Your task to perform on an android device: Search for a custom-made wallet on Etsy Image 0: 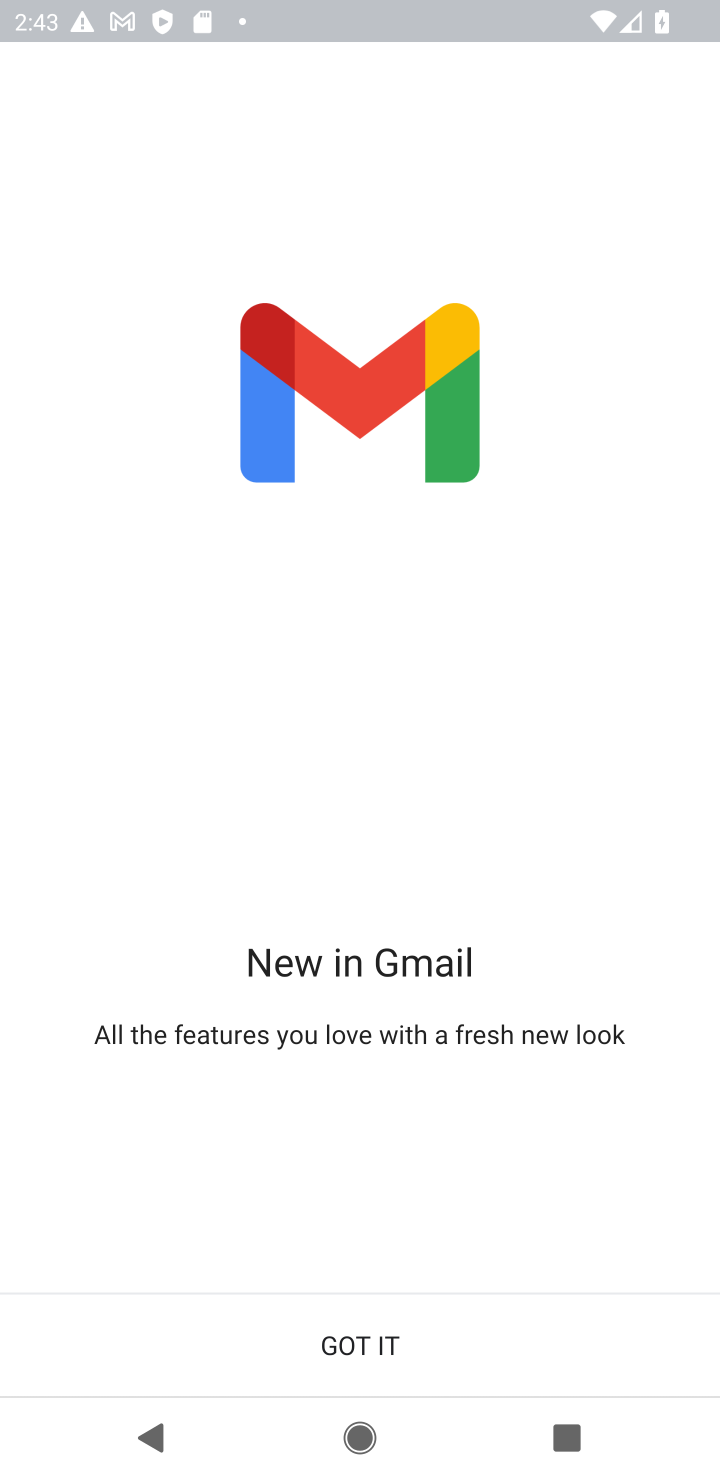
Step 0: press home button
Your task to perform on an android device: Search for a custom-made wallet on Etsy Image 1: 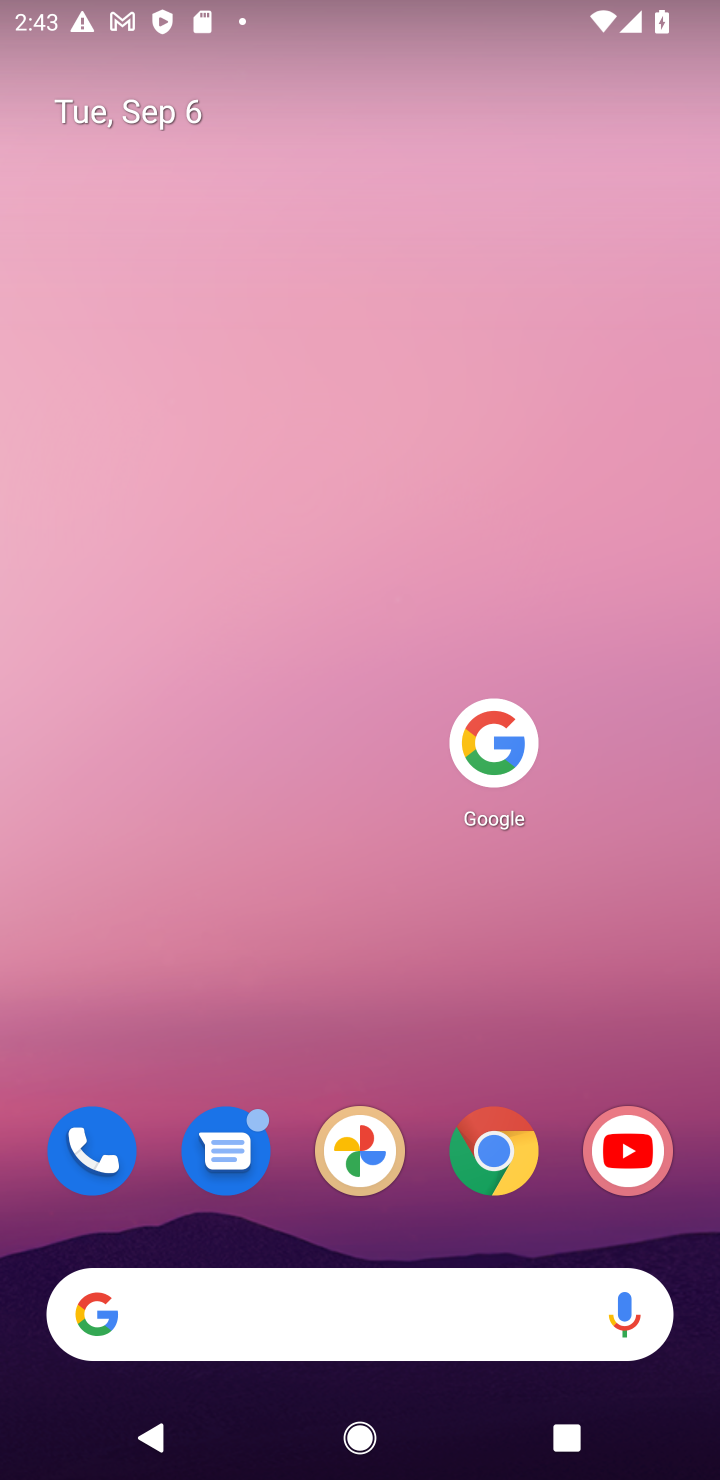
Step 1: click (504, 741)
Your task to perform on an android device: Search for a custom-made wallet on Etsy Image 2: 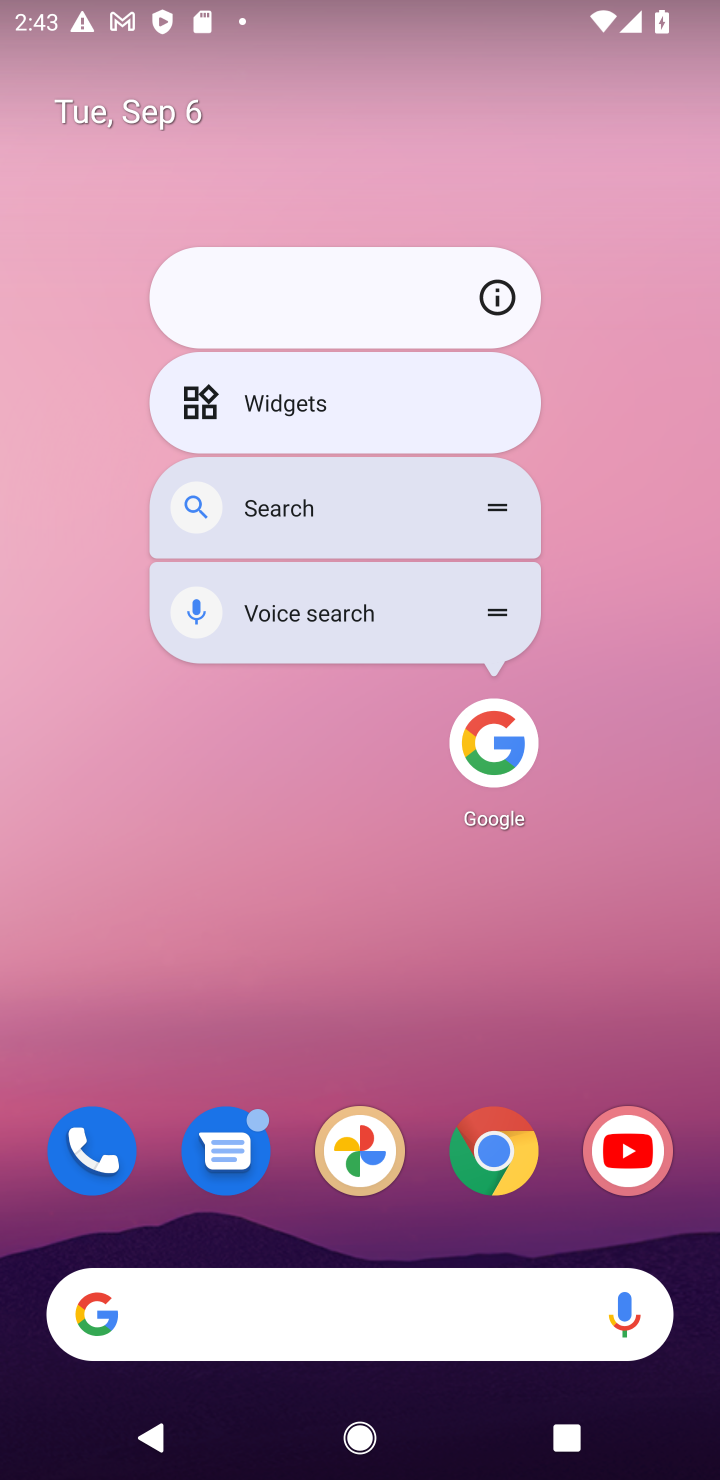
Step 2: click (492, 759)
Your task to perform on an android device: Search for a custom-made wallet on Etsy Image 3: 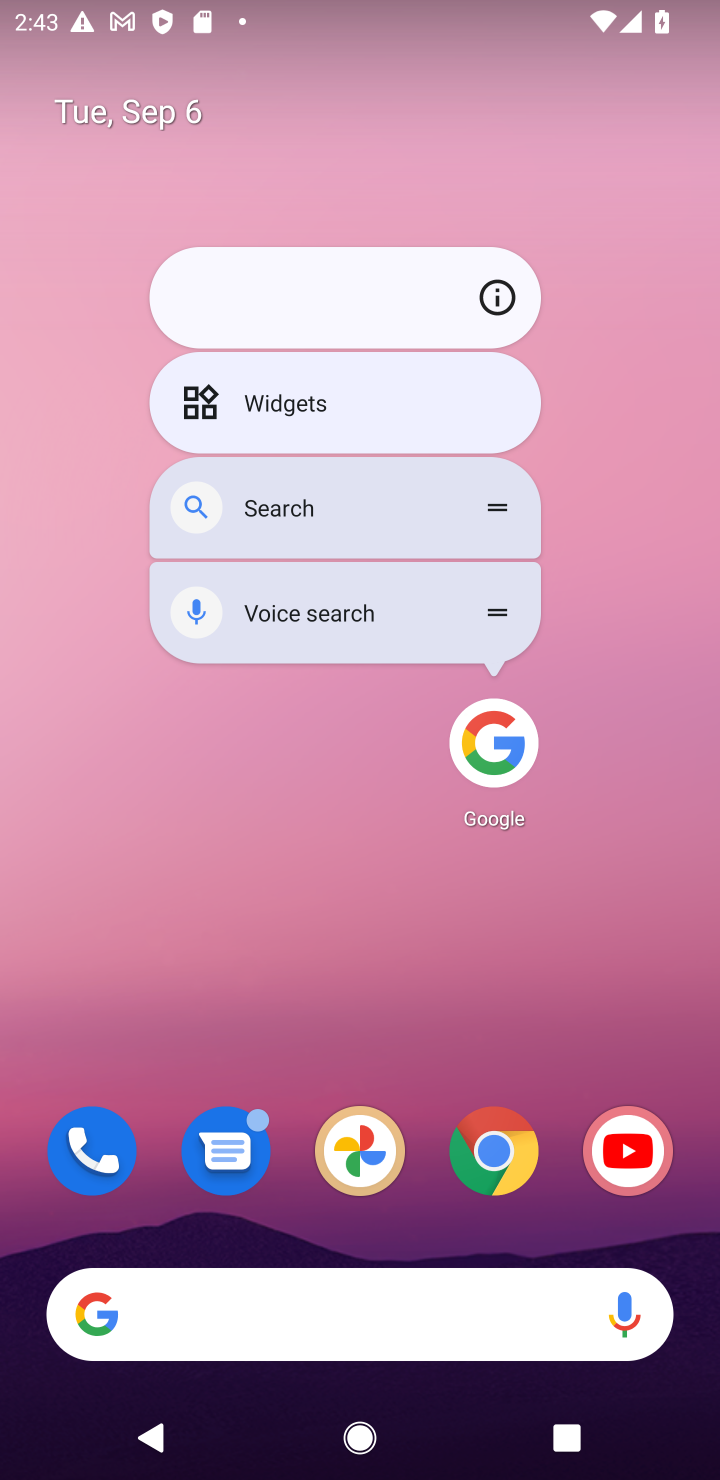
Step 3: click (493, 722)
Your task to perform on an android device: Search for a custom-made wallet on Etsy Image 4: 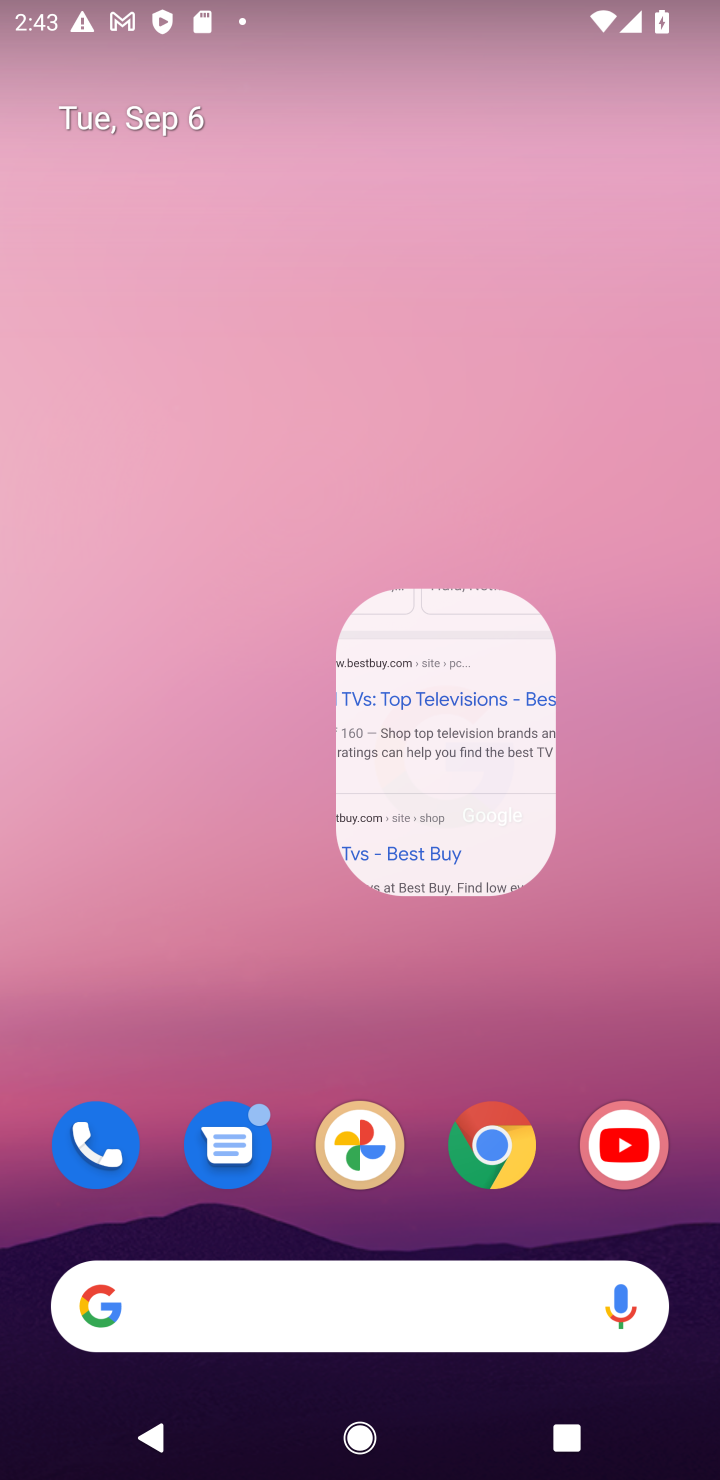
Step 4: click (493, 722)
Your task to perform on an android device: Search for a custom-made wallet on Etsy Image 5: 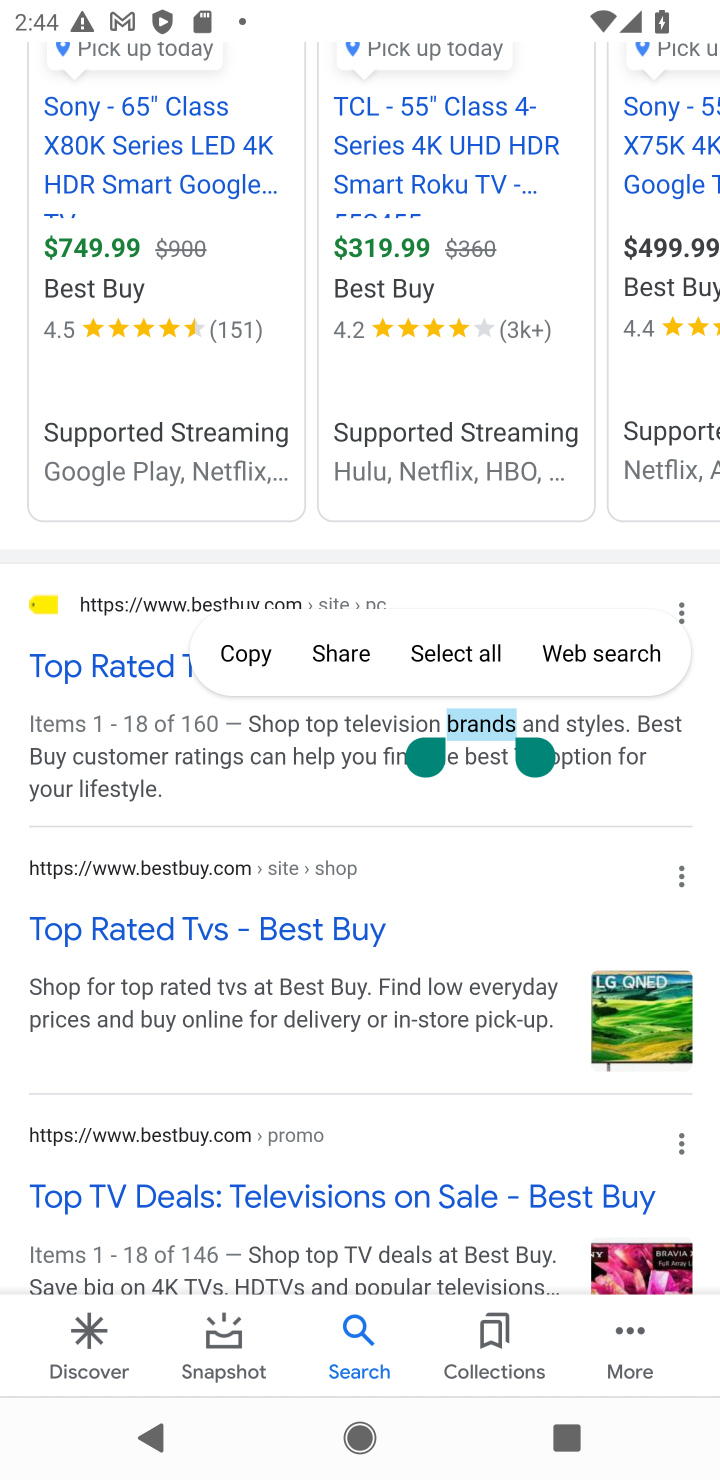
Step 5: drag from (314, 769) to (306, 1036)
Your task to perform on an android device: Search for a custom-made wallet on Etsy Image 6: 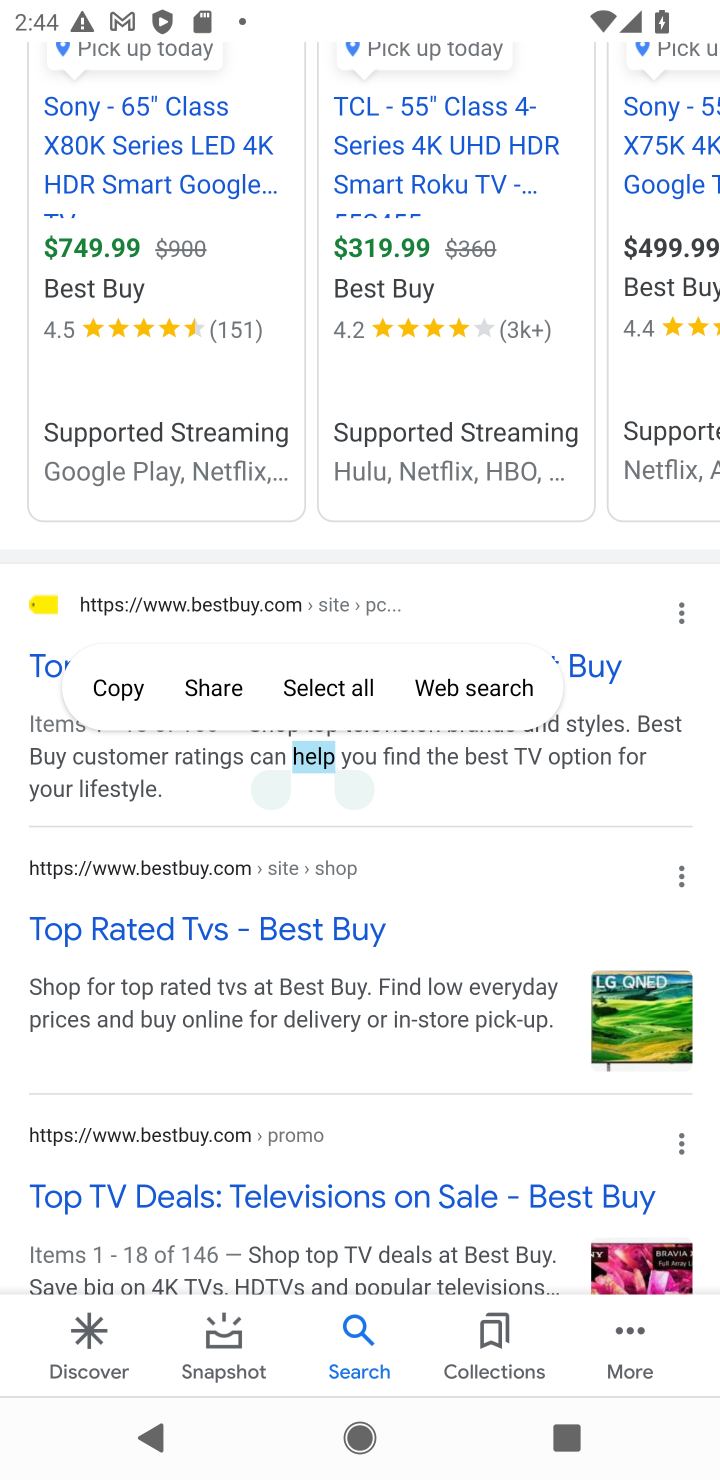
Step 6: drag from (299, 1021) to (307, 1128)
Your task to perform on an android device: Search for a custom-made wallet on Etsy Image 7: 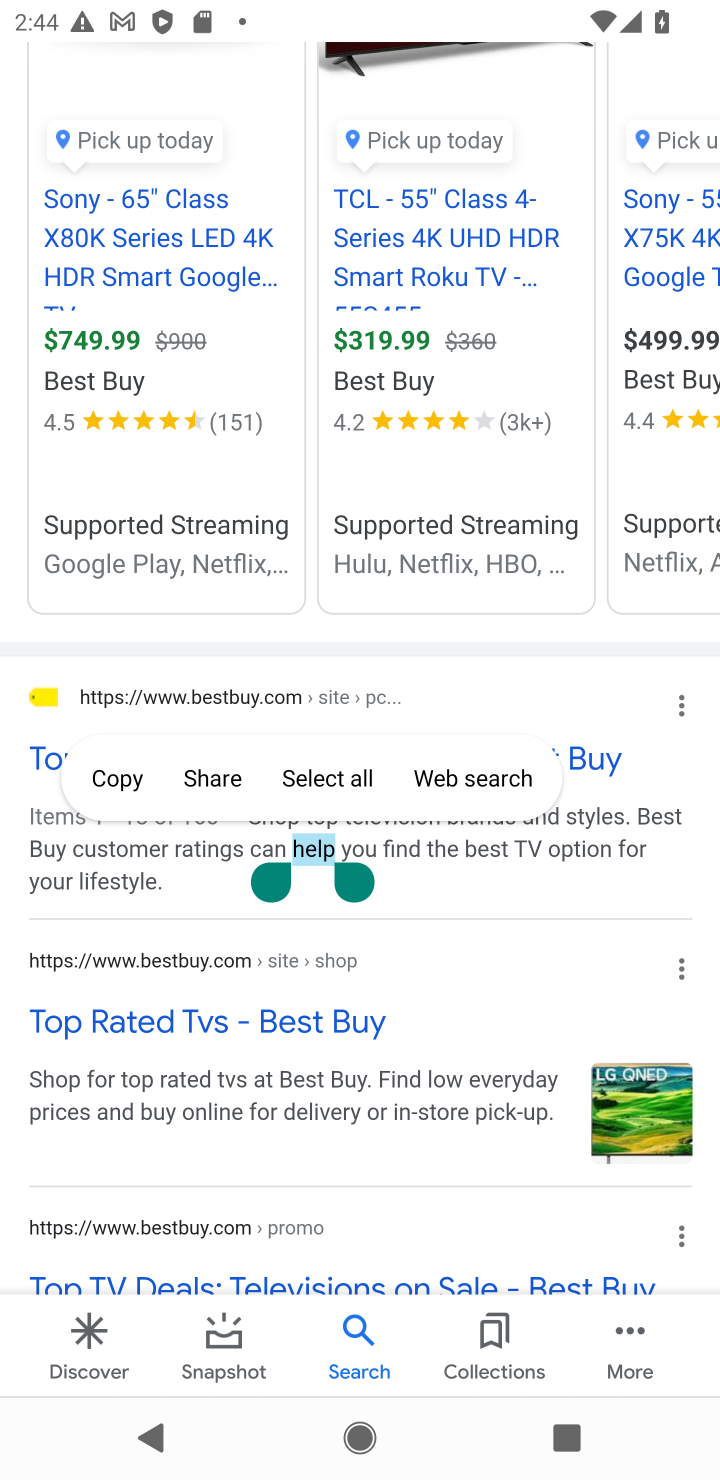
Step 7: drag from (335, 501) to (335, 1085)
Your task to perform on an android device: Search for a custom-made wallet on Etsy Image 8: 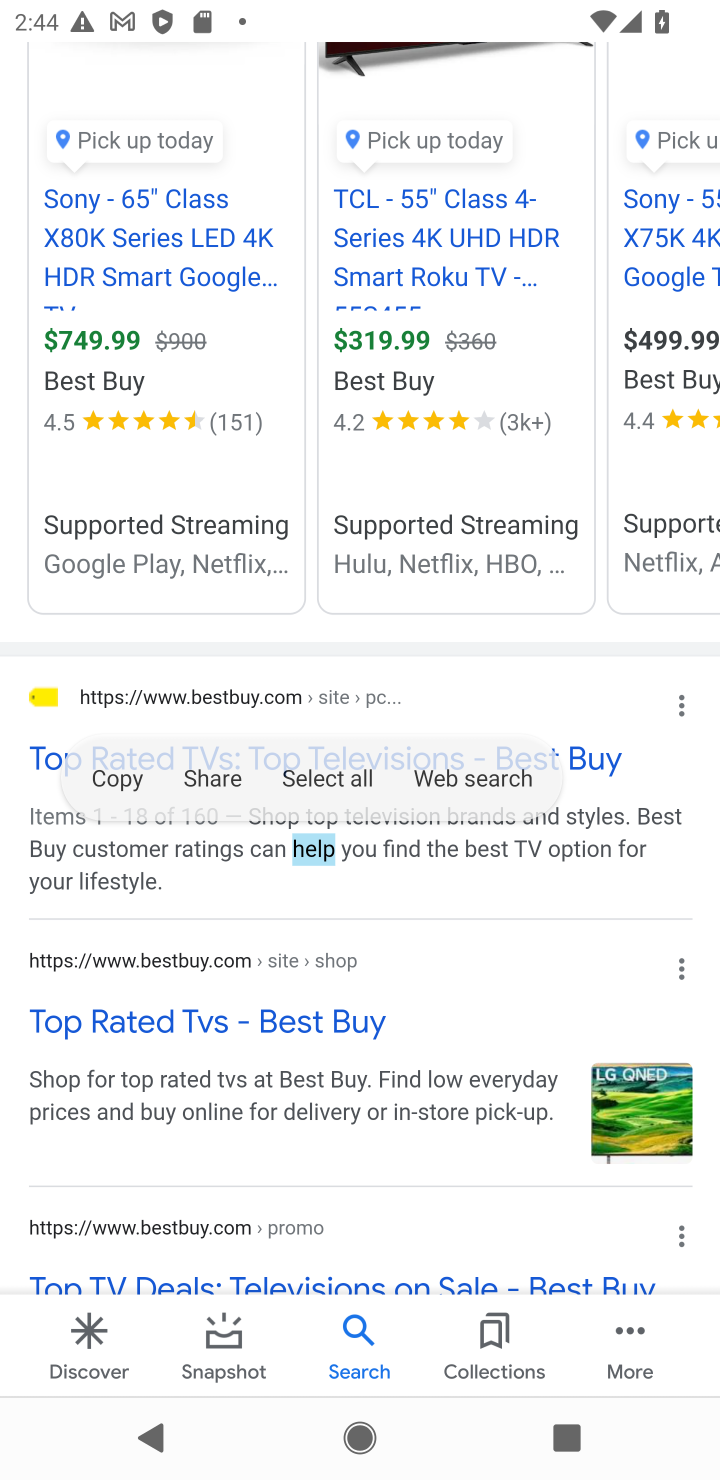
Step 8: drag from (450, 983) to (308, 716)
Your task to perform on an android device: Search for a custom-made wallet on Etsy Image 9: 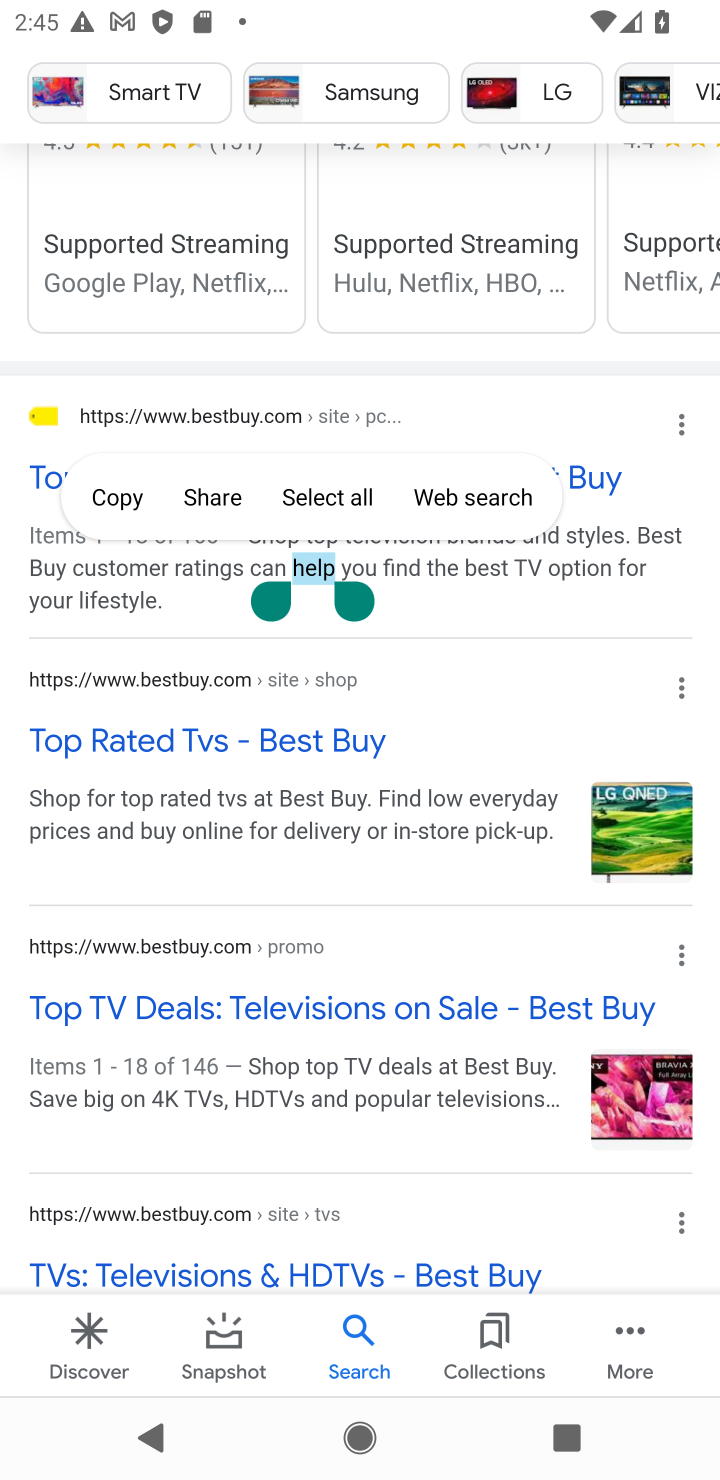
Step 9: drag from (370, 806) to (362, 1266)
Your task to perform on an android device: Search for a custom-made wallet on Etsy Image 10: 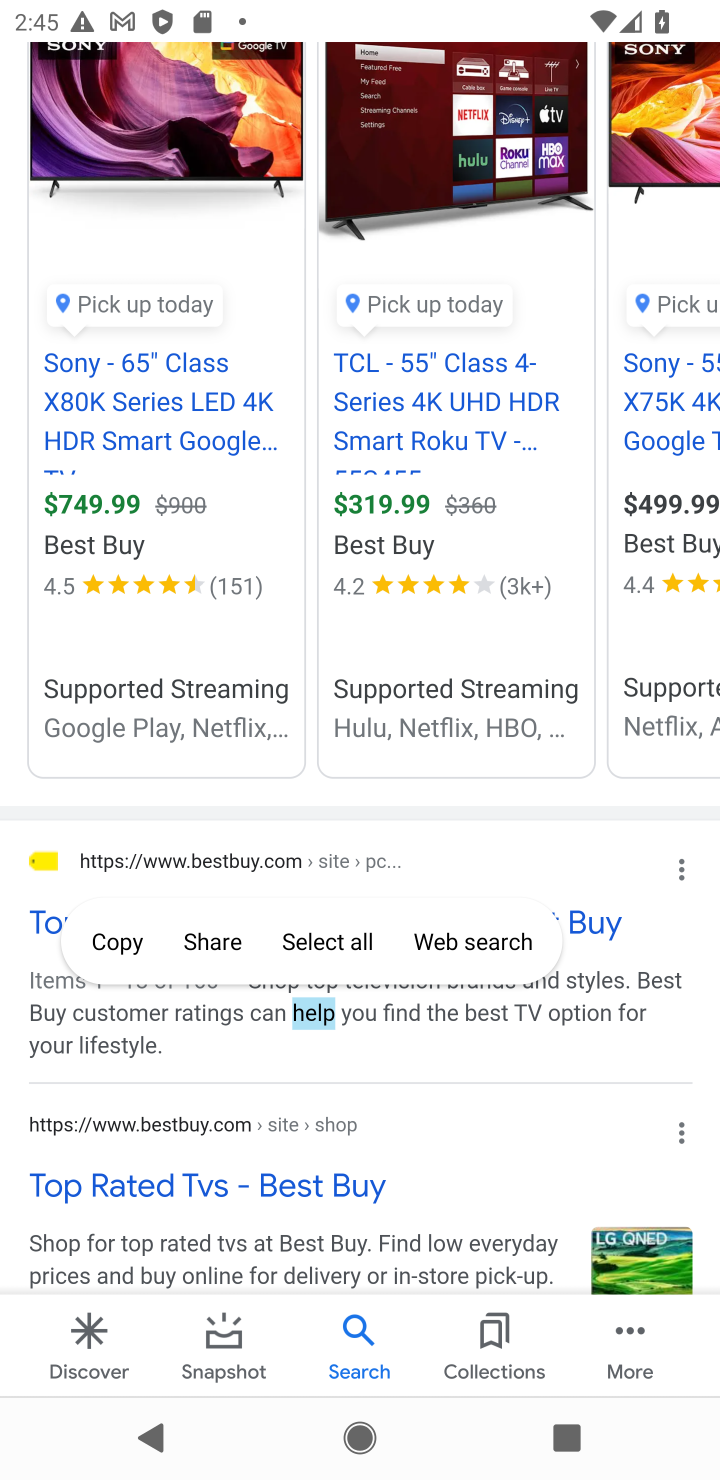
Step 10: drag from (370, 522) to (355, 912)
Your task to perform on an android device: Search for a custom-made wallet on Etsy Image 11: 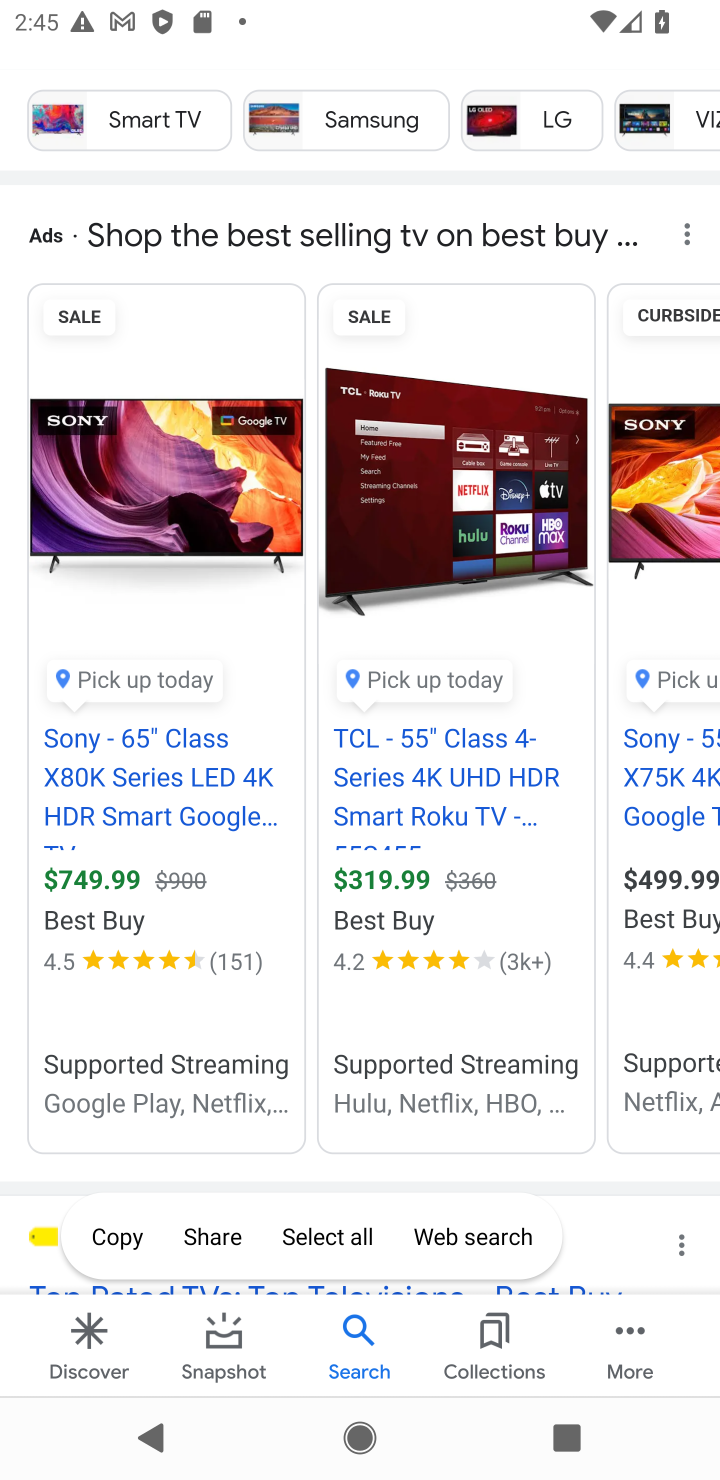
Step 11: drag from (318, 750) to (326, 1169)
Your task to perform on an android device: Search for a custom-made wallet on Etsy Image 12: 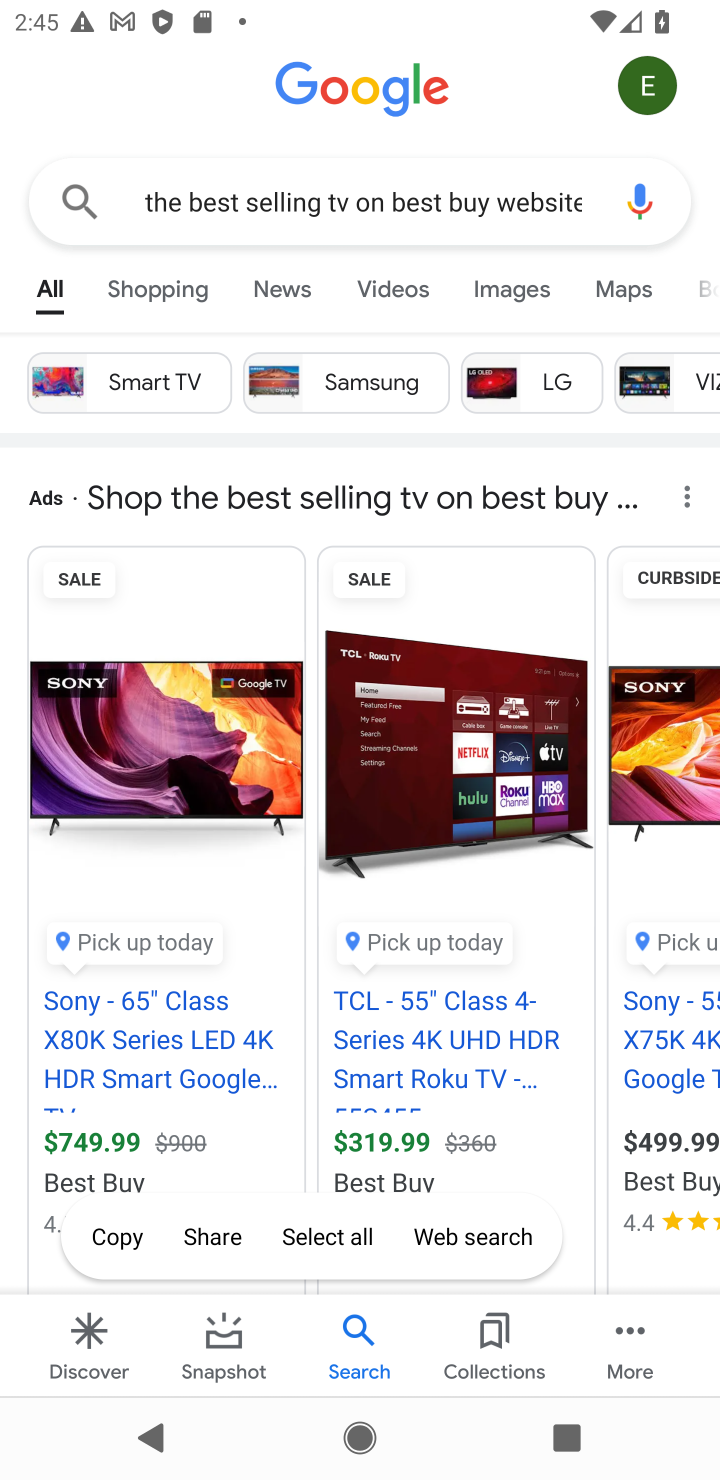
Step 12: click (413, 194)
Your task to perform on an android device: Search for a custom-made wallet on Etsy Image 13: 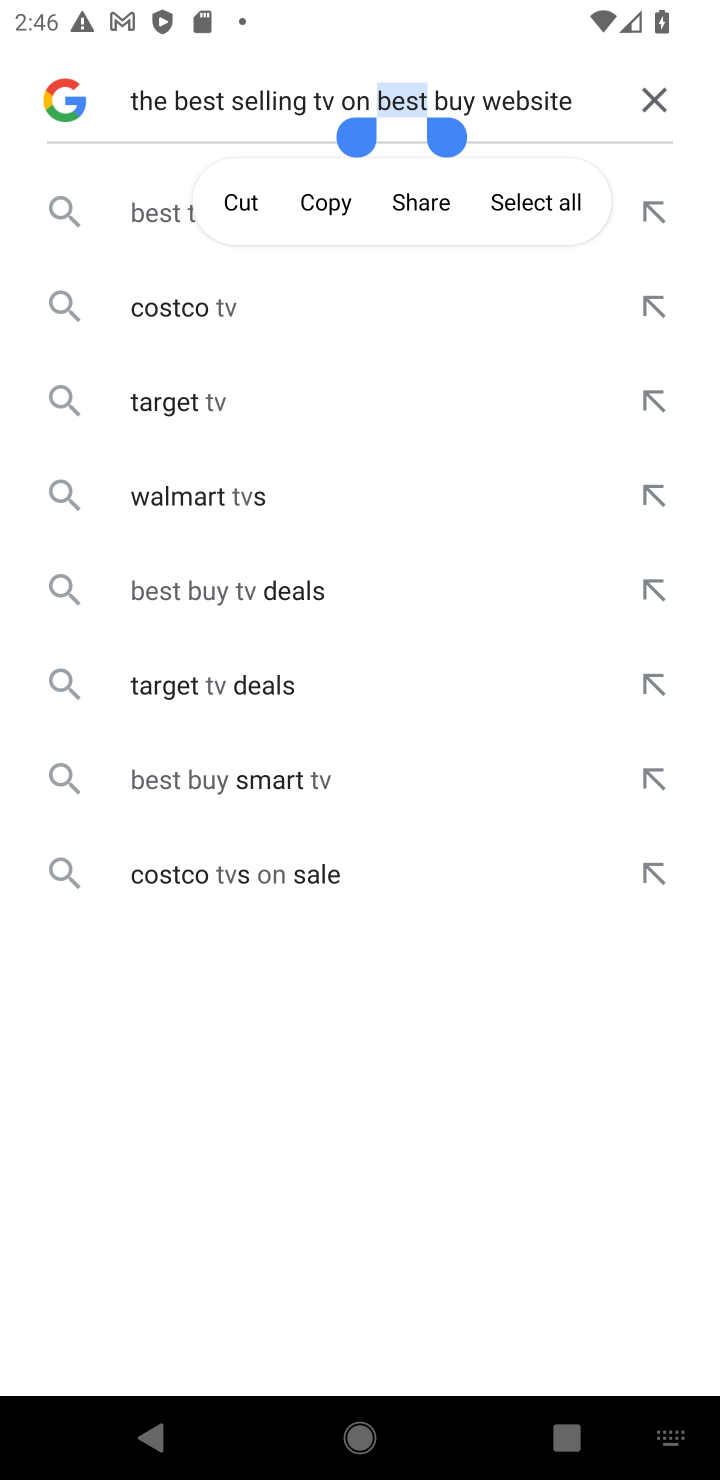
Step 13: click (660, 99)
Your task to perform on an android device: Search for a custom-made wallet on Etsy Image 14: 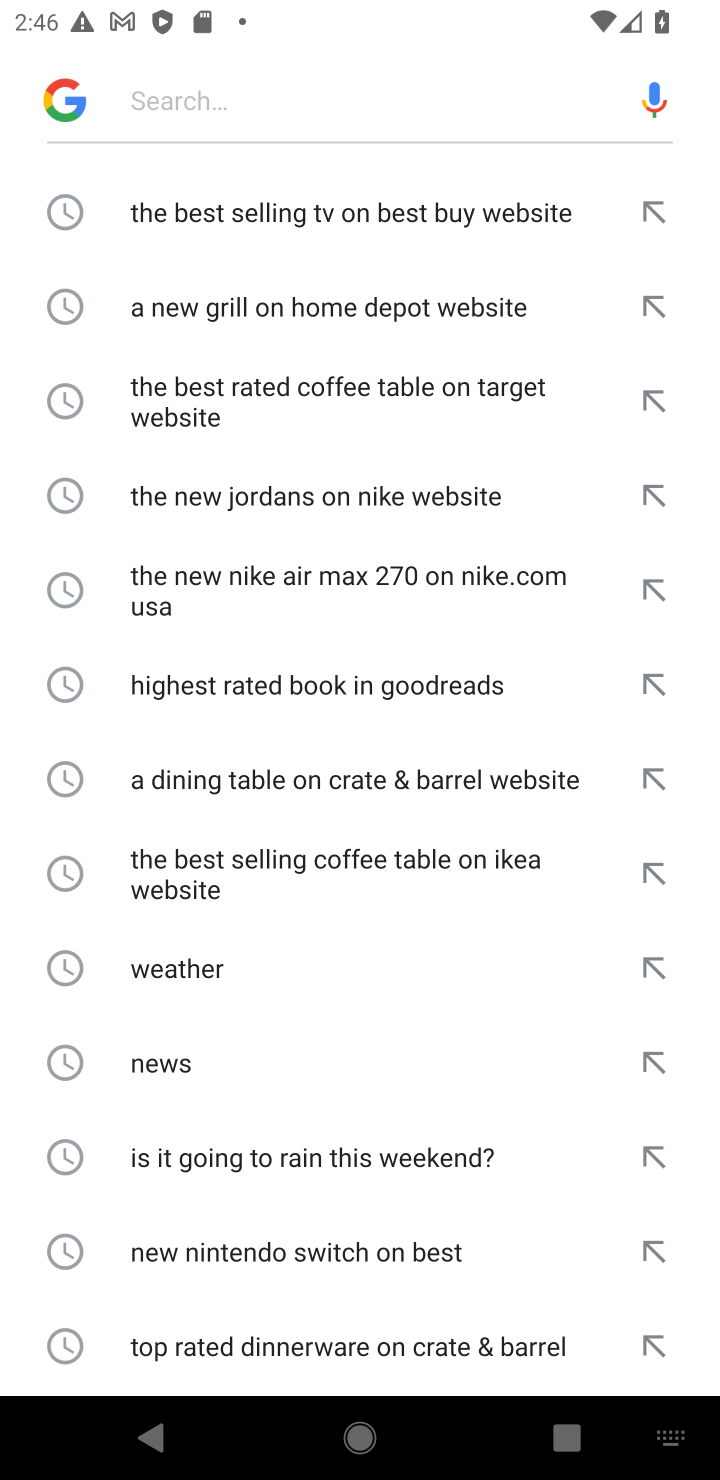
Step 14: click (288, 109)
Your task to perform on an android device: Search for a custom-made wallet on Etsy Image 15: 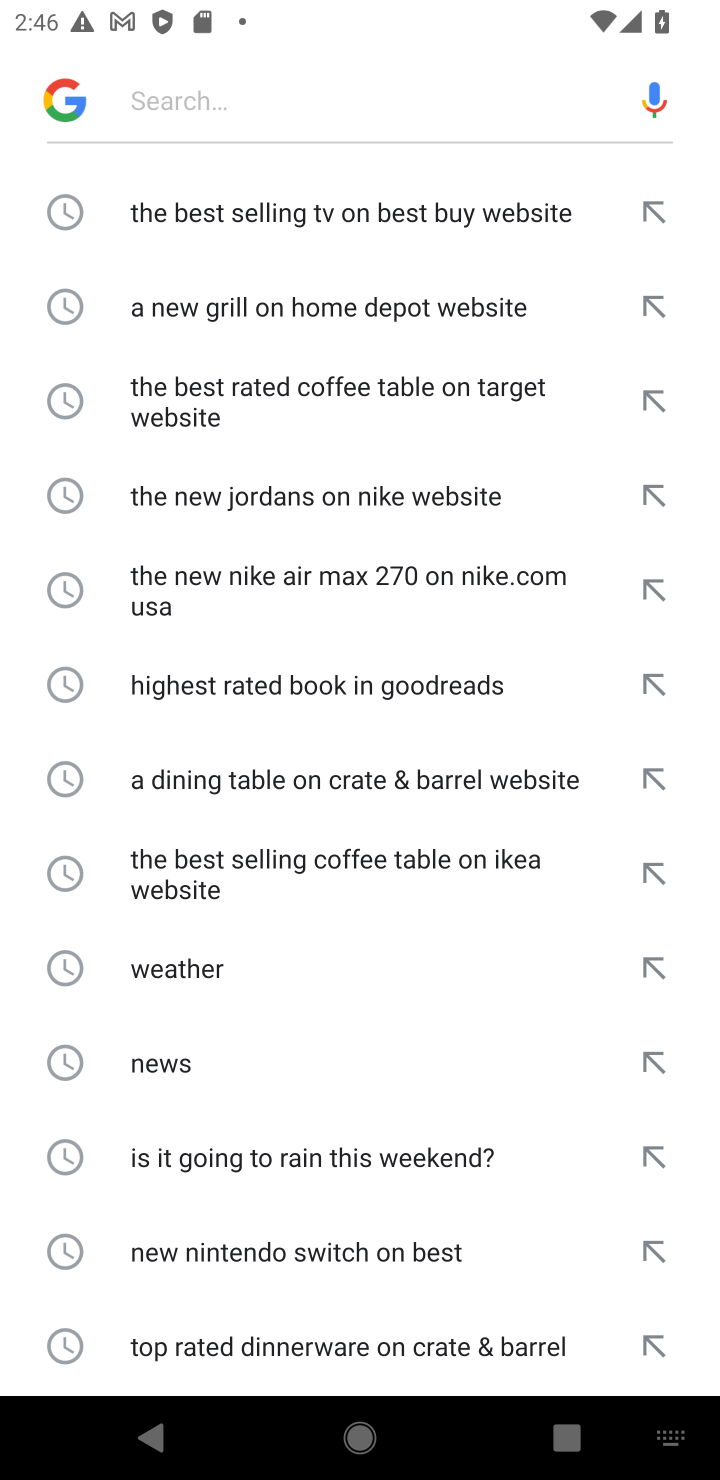
Step 15: type "a custom-made wallet on Etsy "
Your task to perform on an android device: Search for a custom-made wallet on Etsy Image 16: 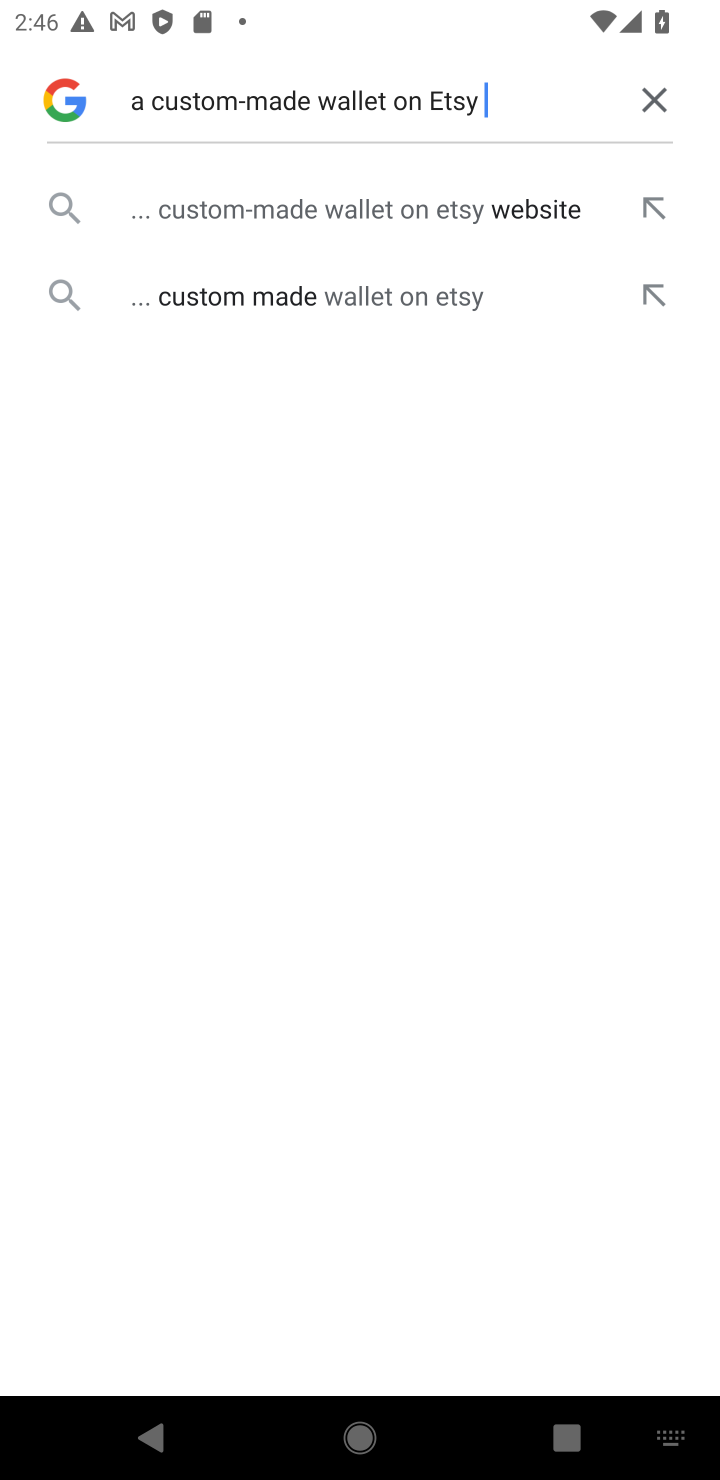
Step 16: click (339, 214)
Your task to perform on an android device: Search for a custom-made wallet on Etsy Image 17: 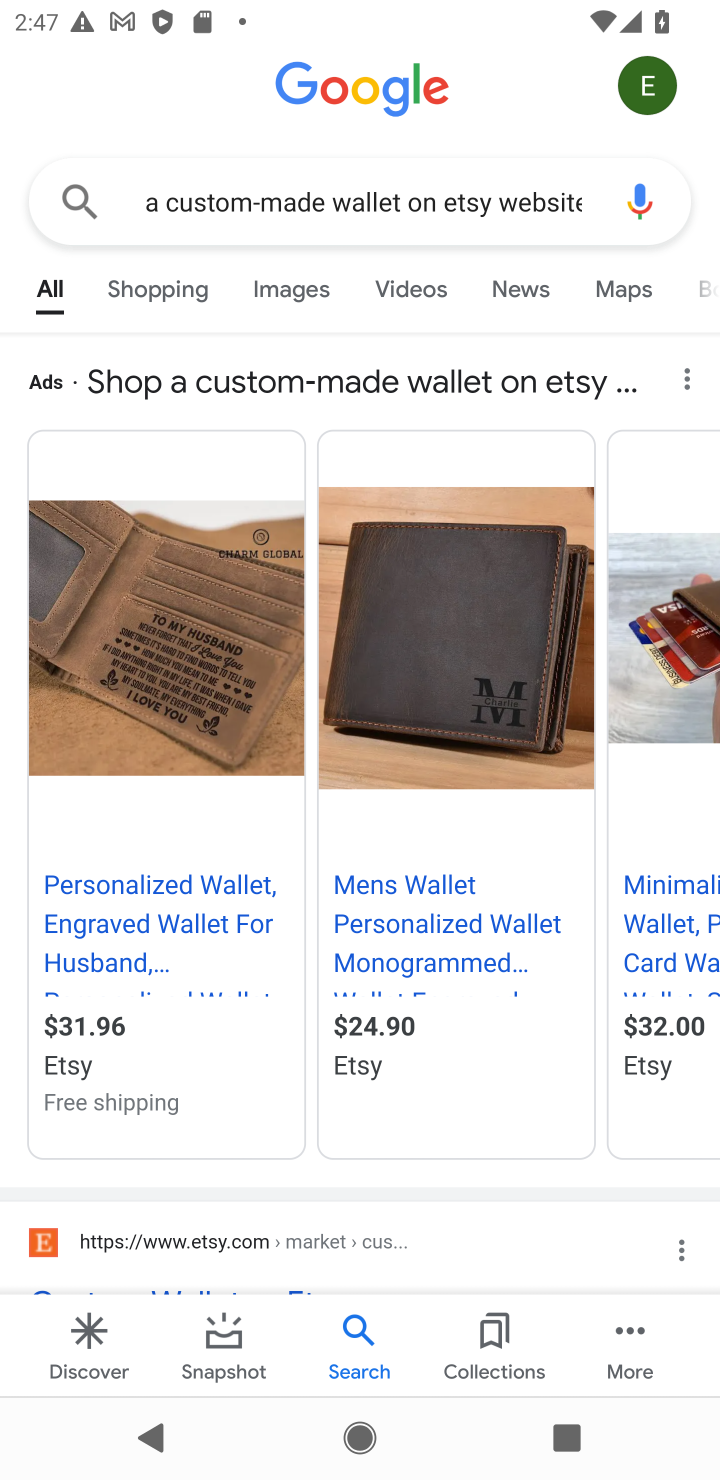
Step 17: drag from (475, 1152) to (453, 579)
Your task to perform on an android device: Search for a custom-made wallet on Etsy Image 18: 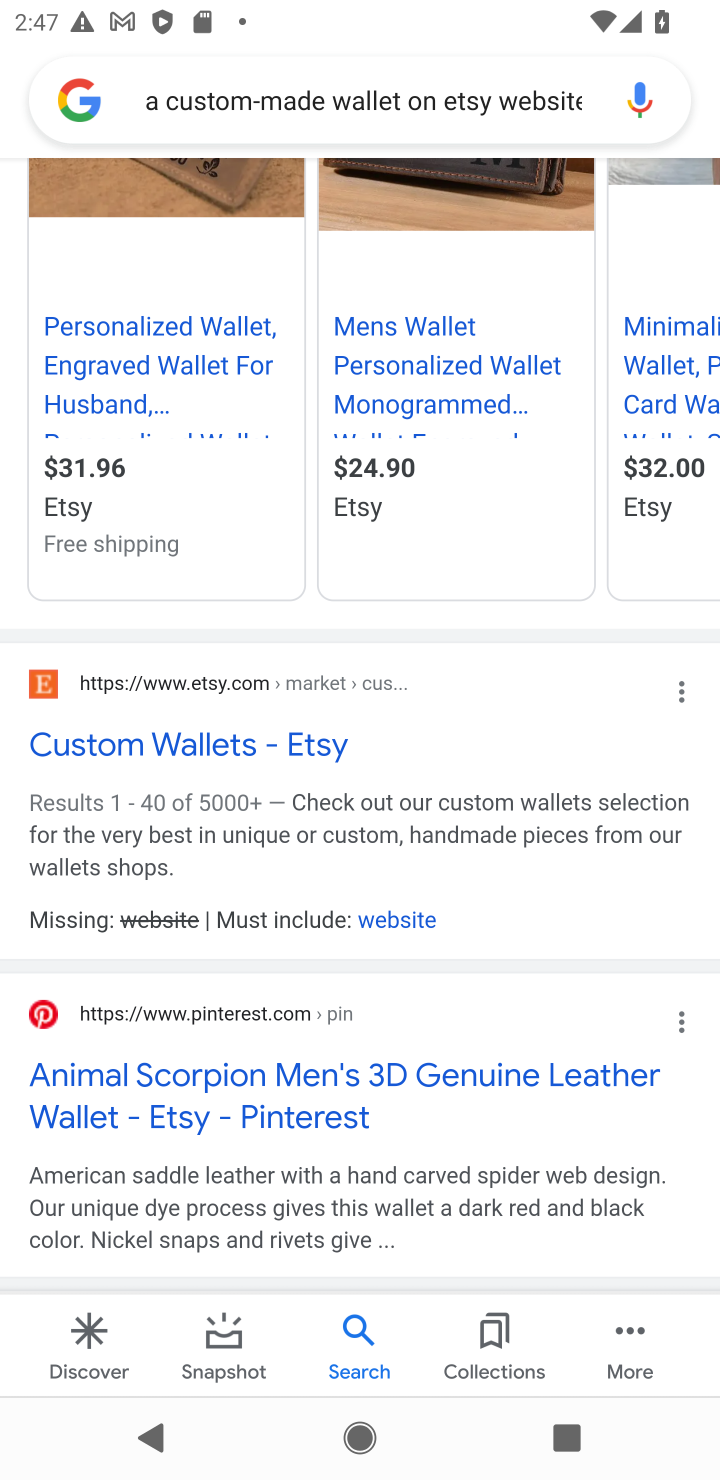
Step 18: click (211, 730)
Your task to perform on an android device: Search for a custom-made wallet on Etsy Image 19: 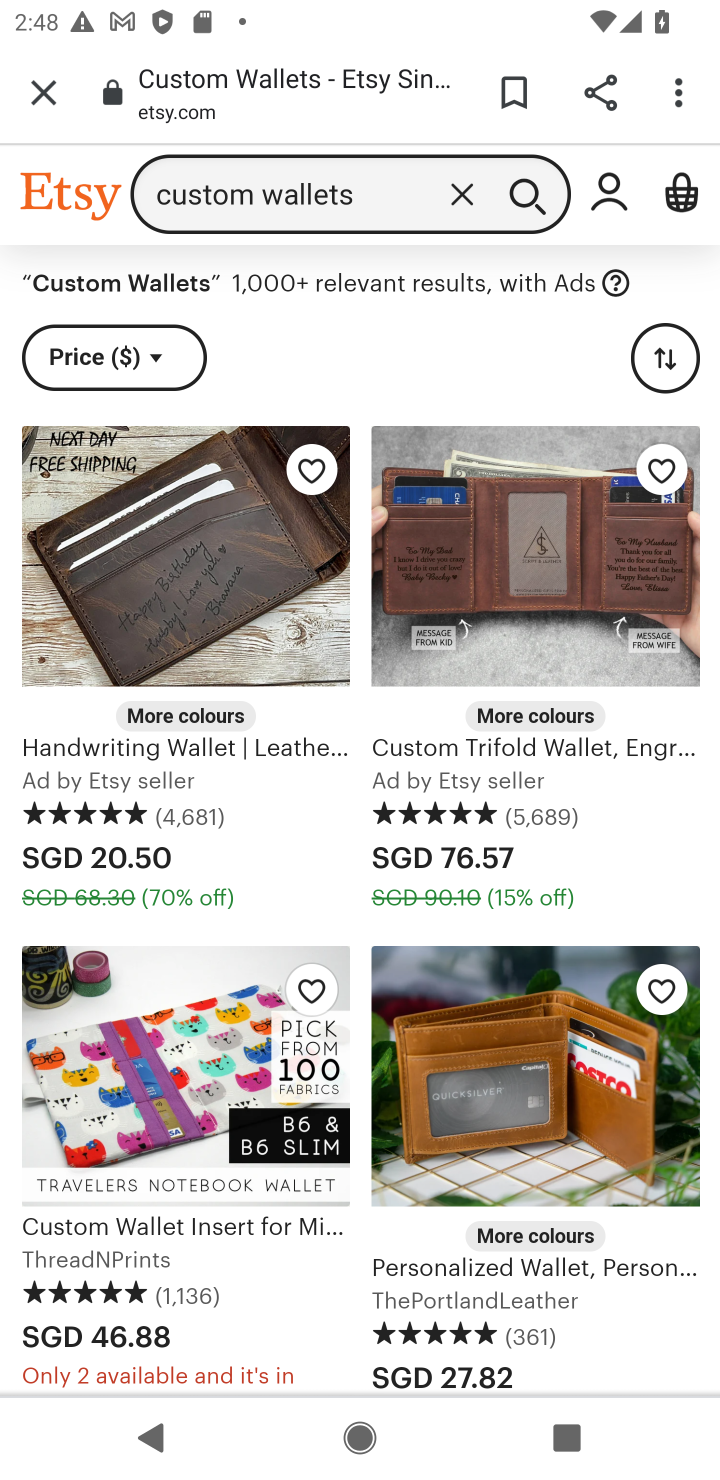
Step 19: task complete